Your task to perform on an android device: Search for pizza restaurants on Maps Image 0: 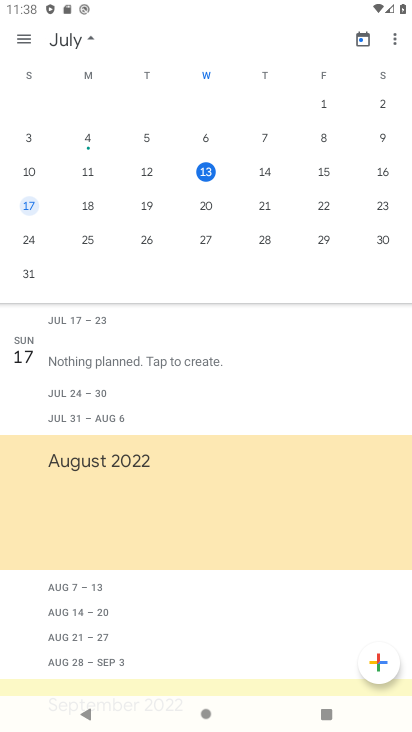
Step 0: press home button
Your task to perform on an android device: Search for pizza restaurants on Maps Image 1: 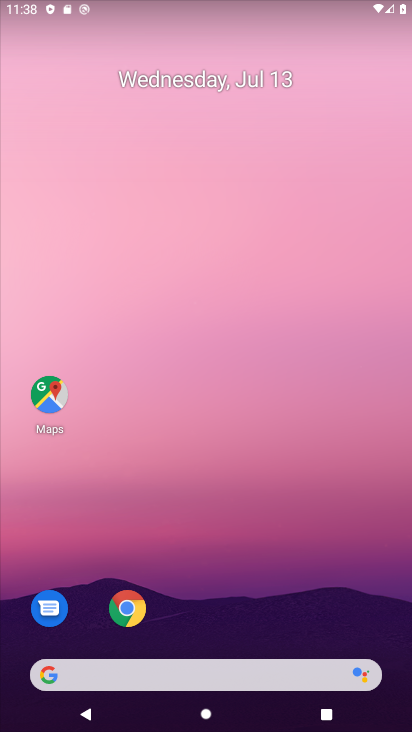
Step 1: click (55, 406)
Your task to perform on an android device: Search for pizza restaurants on Maps Image 2: 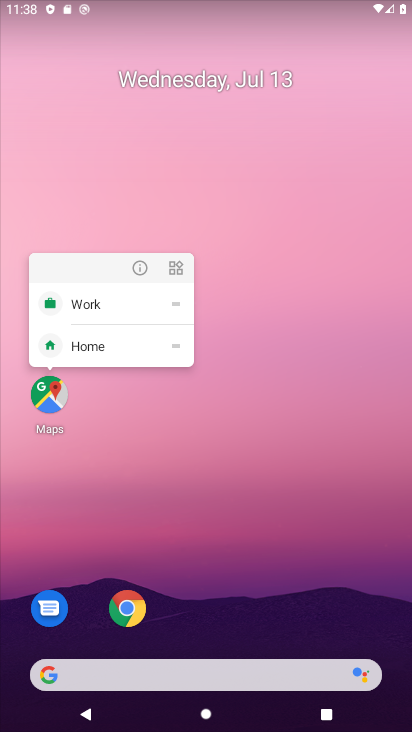
Step 2: click (55, 406)
Your task to perform on an android device: Search for pizza restaurants on Maps Image 3: 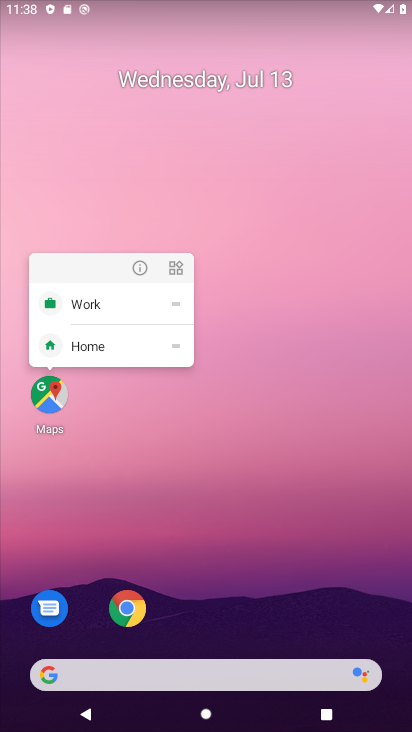
Step 3: click (55, 406)
Your task to perform on an android device: Search for pizza restaurants on Maps Image 4: 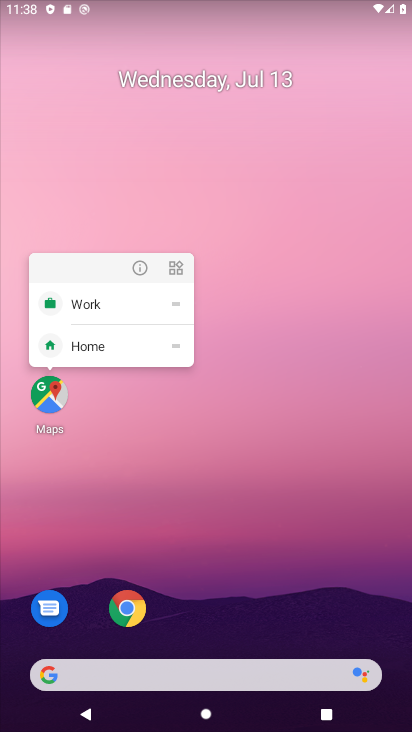
Step 4: click (55, 406)
Your task to perform on an android device: Search for pizza restaurants on Maps Image 5: 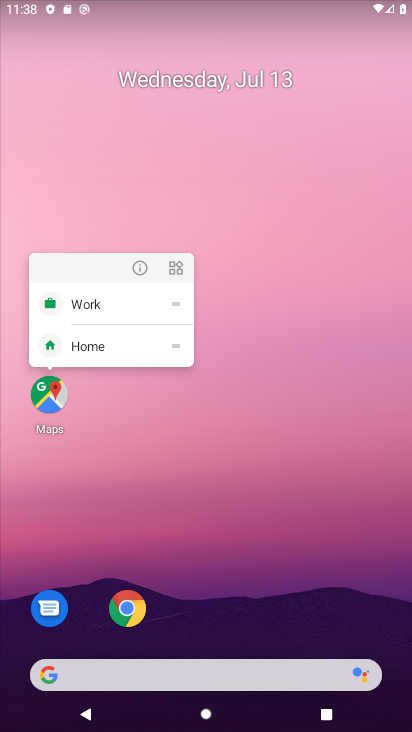
Step 5: click (55, 406)
Your task to perform on an android device: Search for pizza restaurants on Maps Image 6: 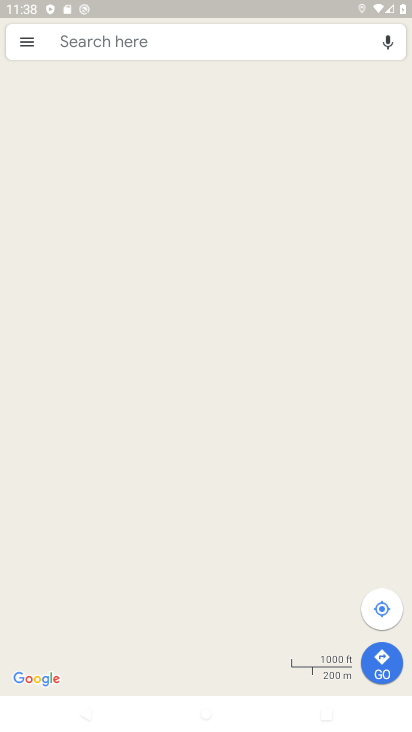
Step 6: click (160, 37)
Your task to perform on an android device: Search for pizza restaurants on Maps Image 7: 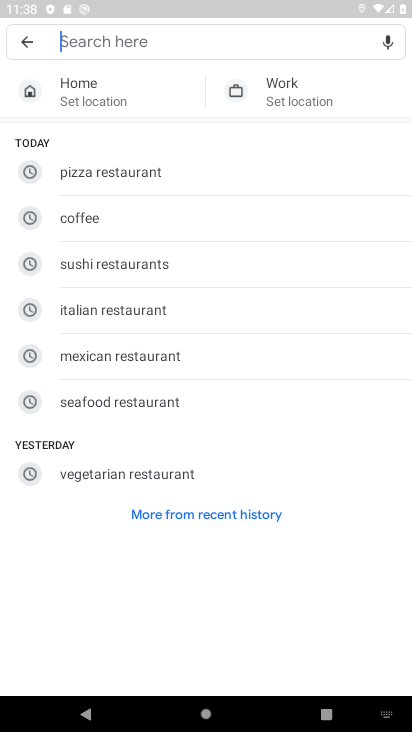
Step 7: type "pizza "
Your task to perform on an android device: Search for pizza restaurants on Maps Image 8: 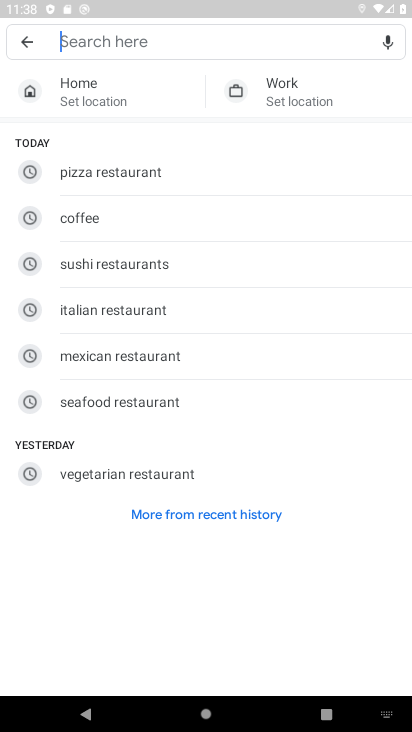
Step 8: click (223, 178)
Your task to perform on an android device: Search for pizza restaurants on Maps Image 9: 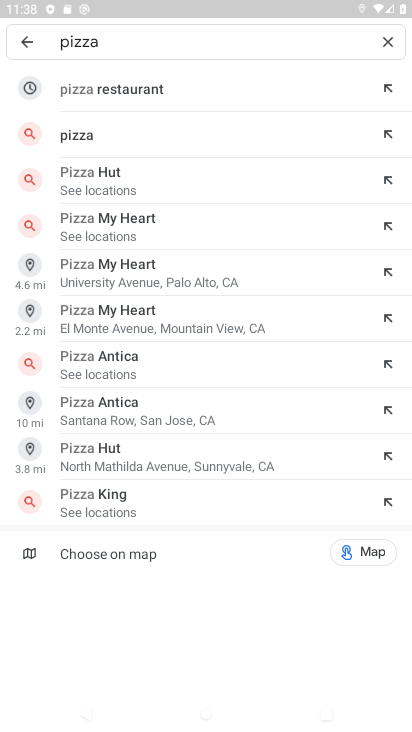
Step 9: click (243, 96)
Your task to perform on an android device: Search for pizza restaurants on Maps Image 10: 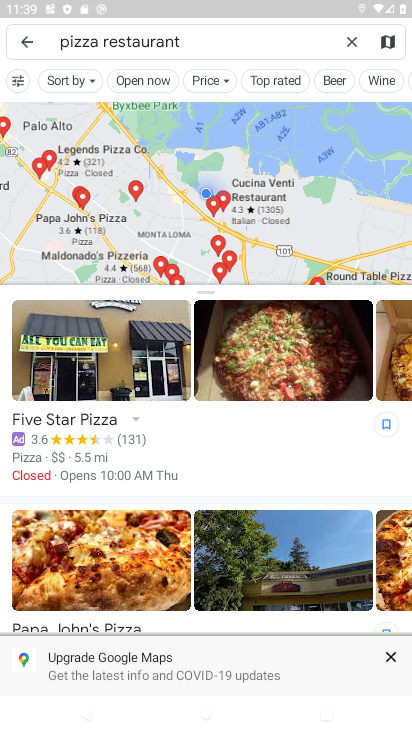
Step 10: task complete